Your task to perform on an android device: make emails show in primary in the gmail app Image 0: 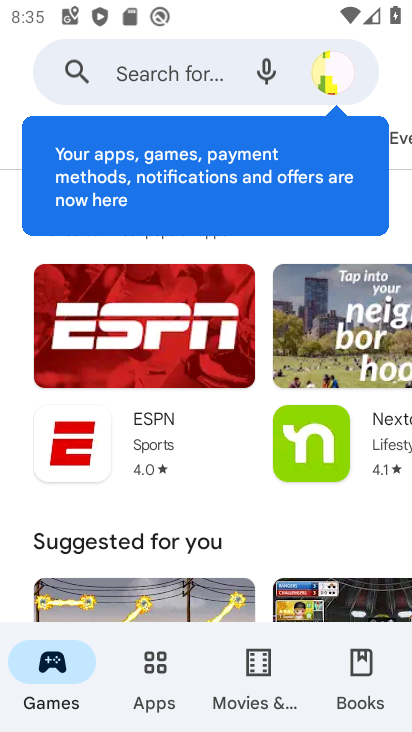
Step 0: press home button
Your task to perform on an android device: make emails show in primary in the gmail app Image 1: 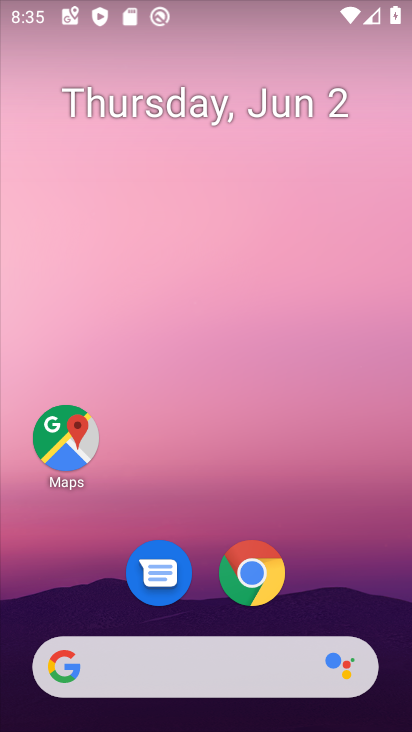
Step 1: drag from (363, 600) to (321, 60)
Your task to perform on an android device: make emails show in primary in the gmail app Image 2: 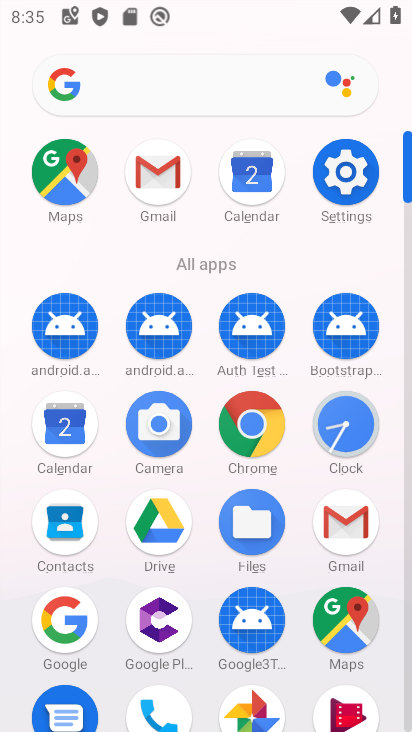
Step 2: click (337, 531)
Your task to perform on an android device: make emails show in primary in the gmail app Image 3: 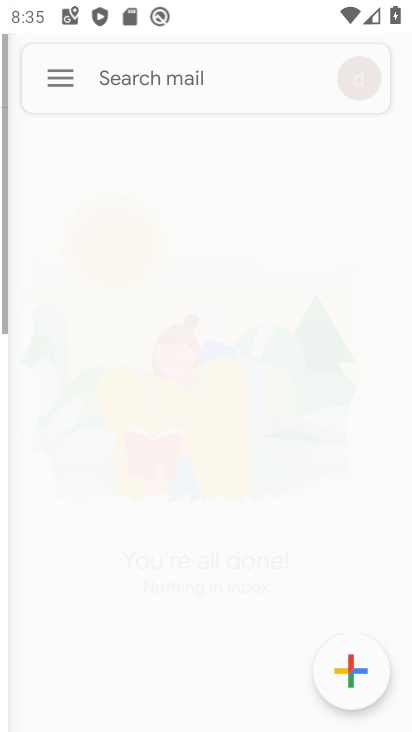
Step 3: click (355, 464)
Your task to perform on an android device: make emails show in primary in the gmail app Image 4: 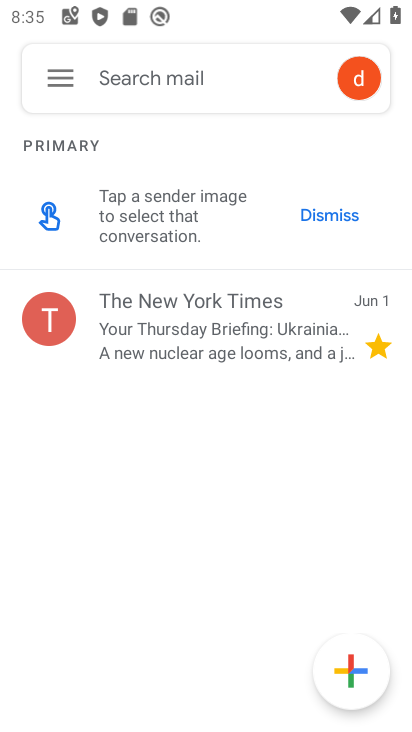
Step 4: click (177, 342)
Your task to perform on an android device: make emails show in primary in the gmail app Image 5: 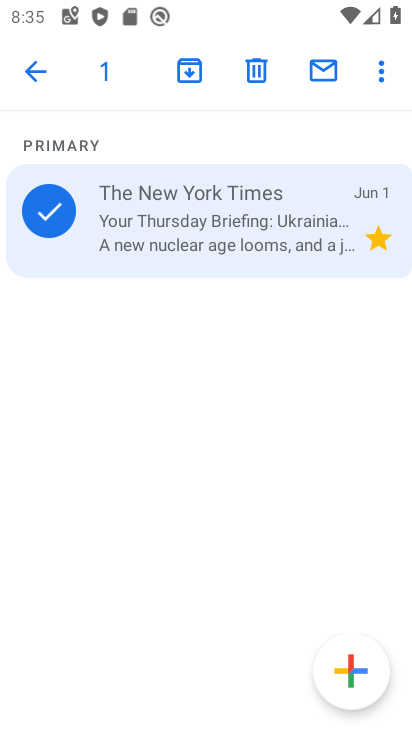
Step 5: click (380, 78)
Your task to perform on an android device: make emails show in primary in the gmail app Image 6: 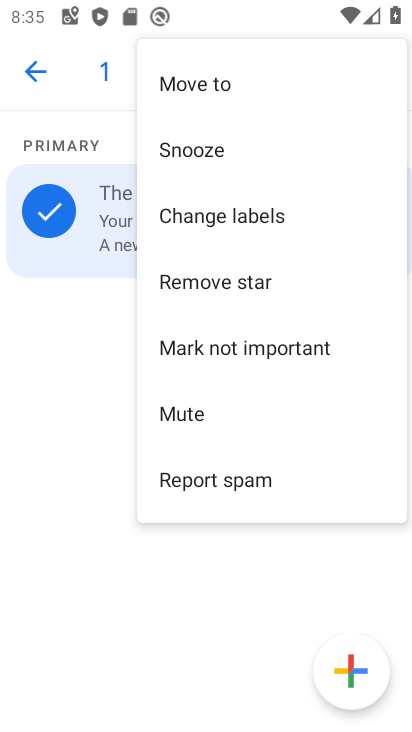
Step 6: click (107, 549)
Your task to perform on an android device: make emails show in primary in the gmail app Image 7: 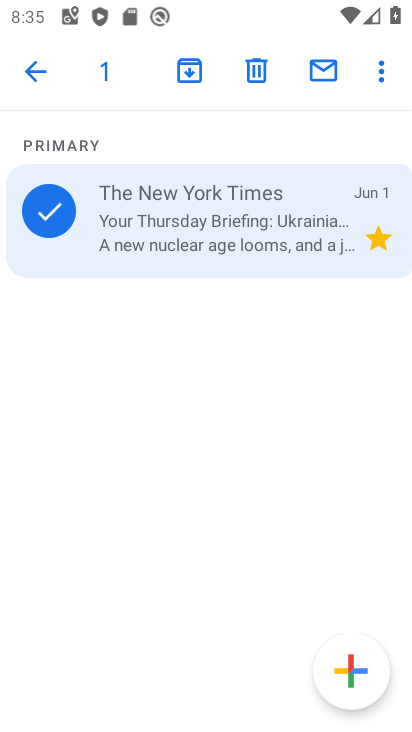
Step 7: click (22, 66)
Your task to perform on an android device: make emails show in primary in the gmail app Image 8: 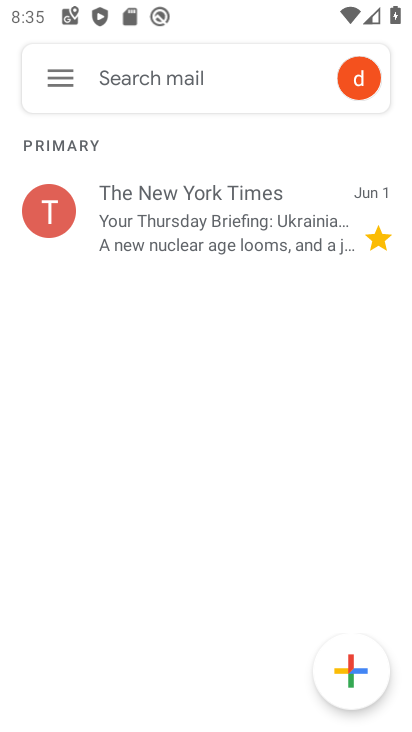
Step 8: click (55, 84)
Your task to perform on an android device: make emails show in primary in the gmail app Image 9: 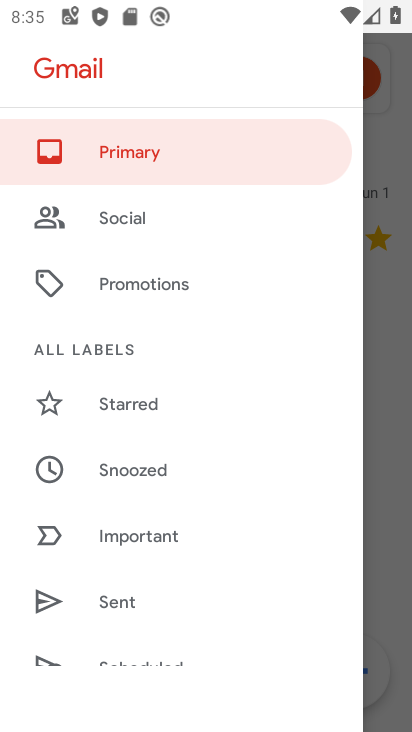
Step 9: click (191, 166)
Your task to perform on an android device: make emails show in primary in the gmail app Image 10: 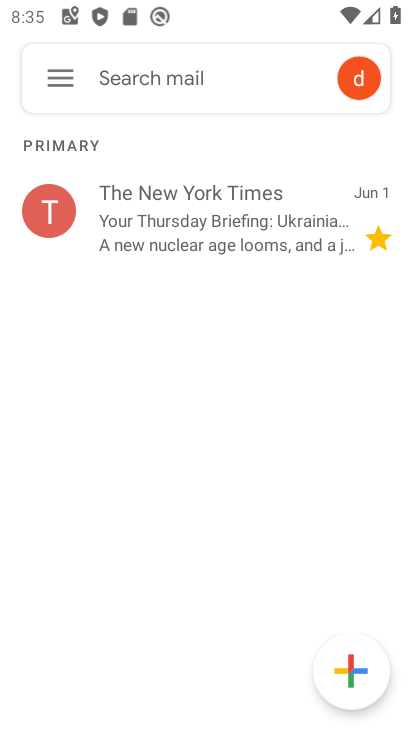
Step 10: task complete